Your task to perform on an android device: toggle wifi Image 0: 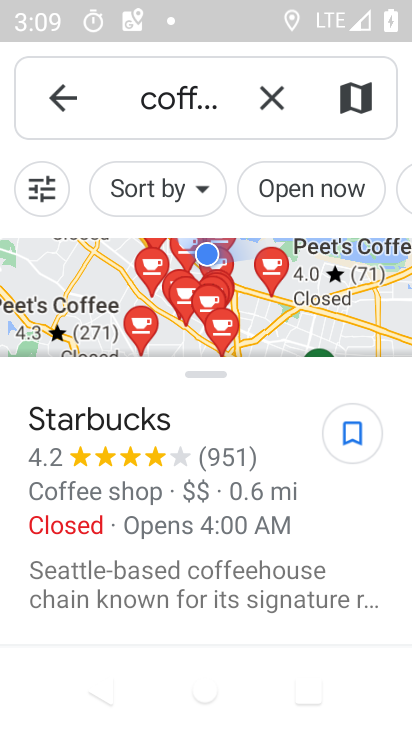
Step 0: press home button
Your task to perform on an android device: toggle wifi Image 1: 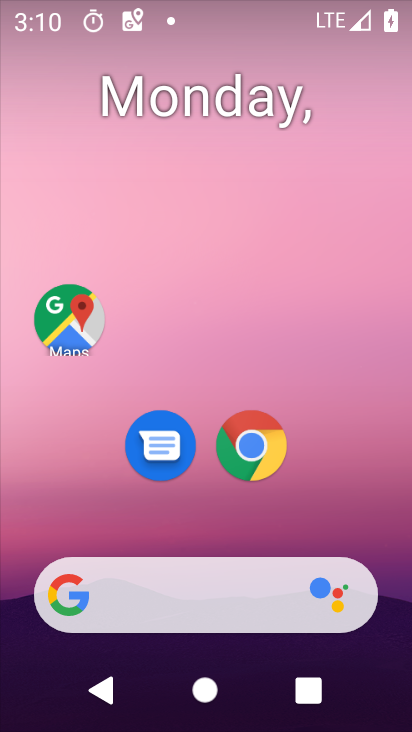
Step 1: drag from (228, 599) to (201, 2)
Your task to perform on an android device: toggle wifi Image 2: 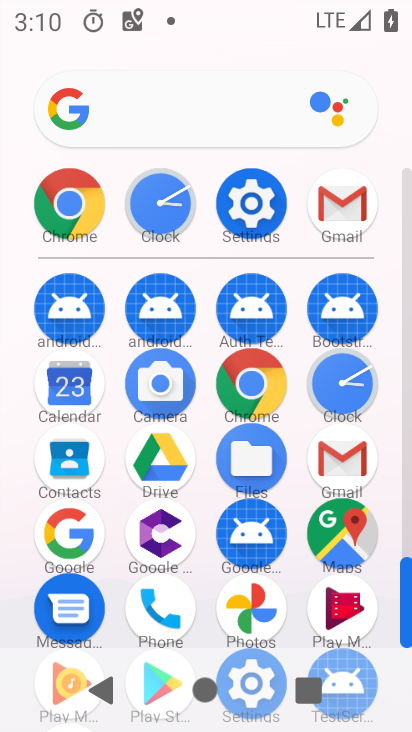
Step 2: click (251, 193)
Your task to perform on an android device: toggle wifi Image 3: 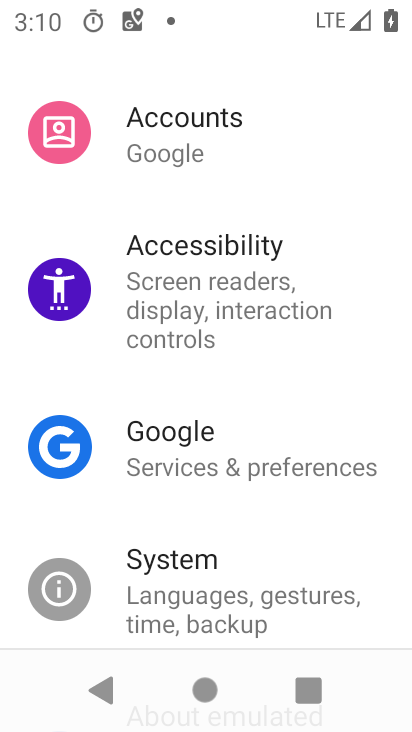
Step 3: drag from (218, 179) to (236, 616)
Your task to perform on an android device: toggle wifi Image 4: 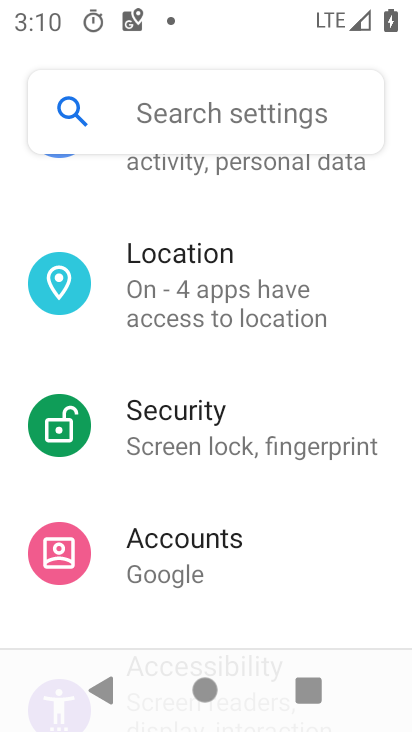
Step 4: drag from (190, 170) to (183, 700)
Your task to perform on an android device: toggle wifi Image 5: 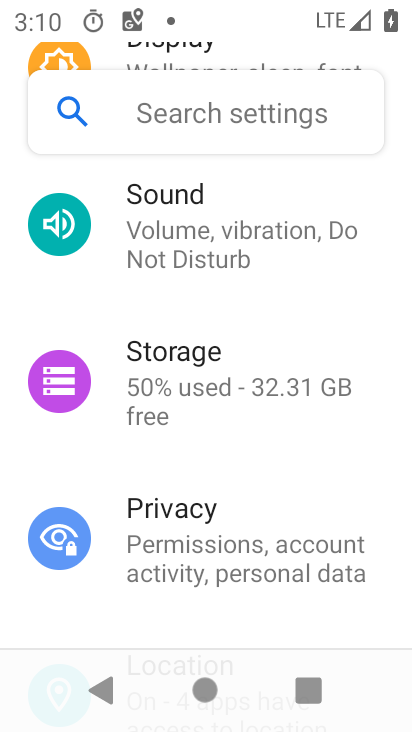
Step 5: drag from (186, 190) to (202, 592)
Your task to perform on an android device: toggle wifi Image 6: 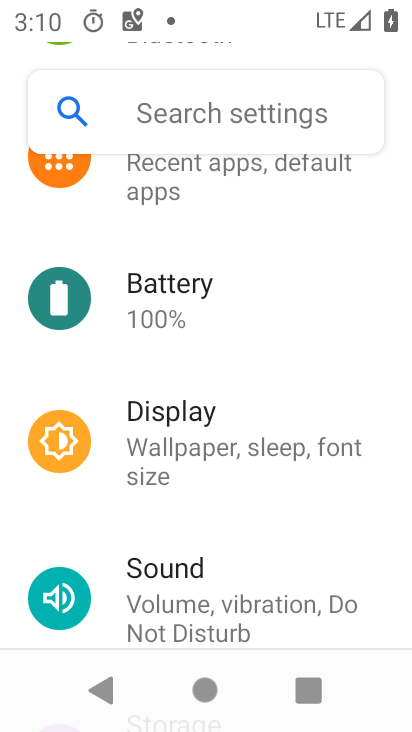
Step 6: drag from (175, 194) to (220, 560)
Your task to perform on an android device: toggle wifi Image 7: 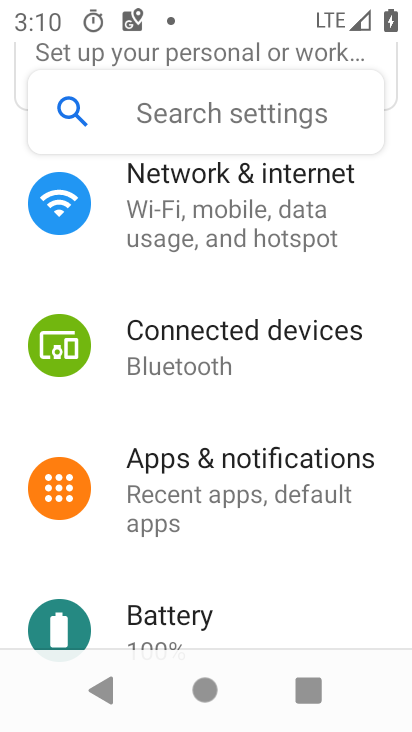
Step 7: drag from (182, 192) to (187, 439)
Your task to perform on an android device: toggle wifi Image 8: 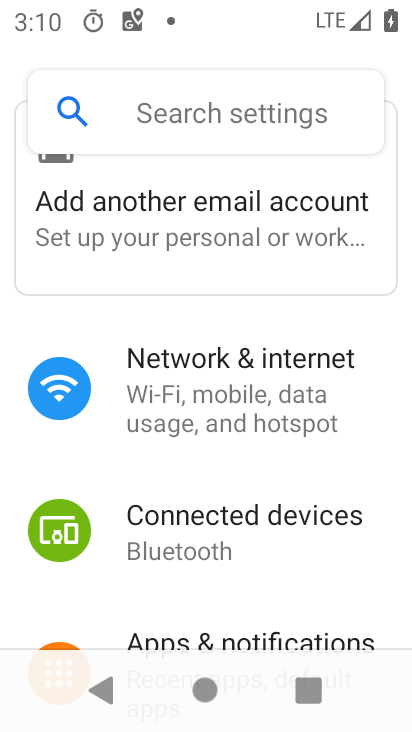
Step 8: click (185, 388)
Your task to perform on an android device: toggle wifi Image 9: 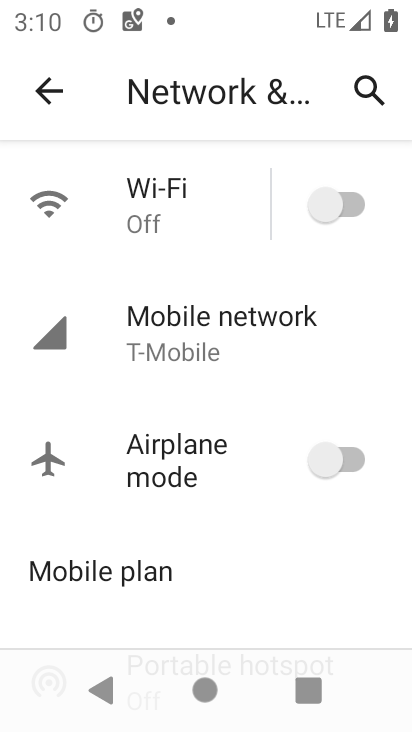
Step 9: click (344, 201)
Your task to perform on an android device: toggle wifi Image 10: 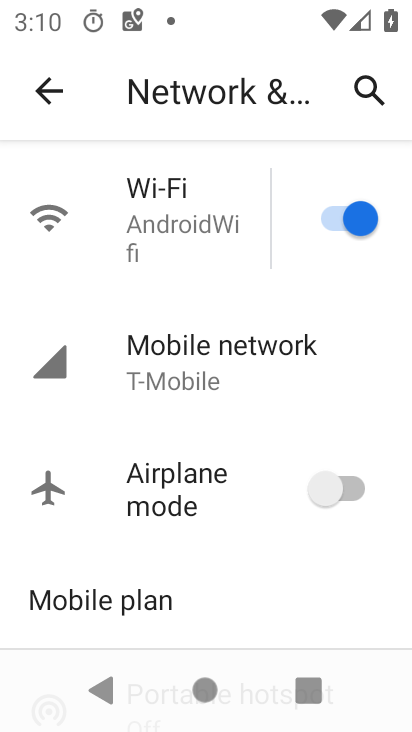
Step 10: task complete